Your task to perform on an android device: Go to network settings Image 0: 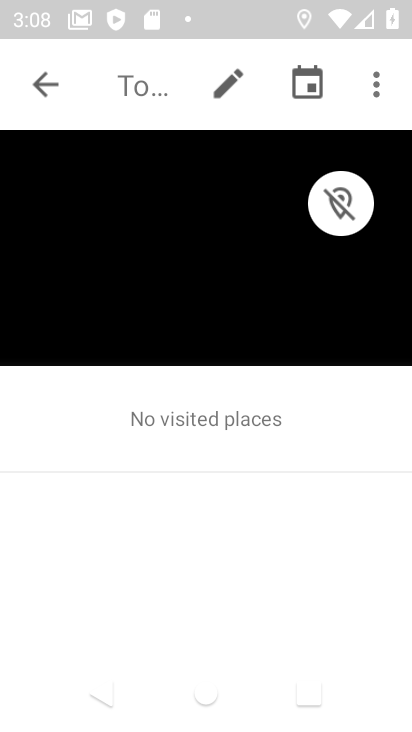
Step 0: press home button
Your task to perform on an android device: Go to network settings Image 1: 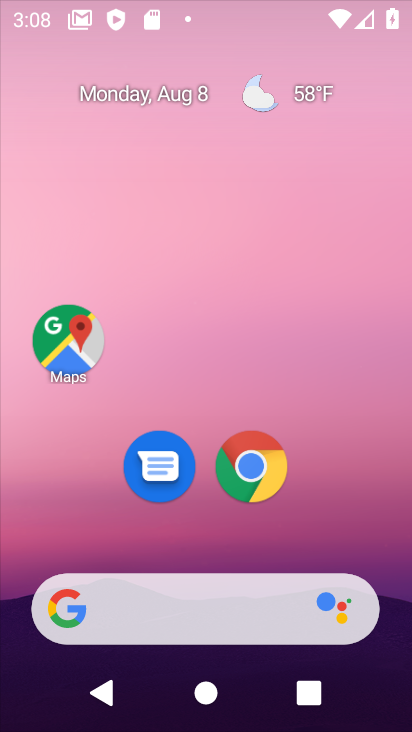
Step 1: drag from (238, 656) to (234, 173)
Your task to perform on an android device: Go to network settings Image 2: 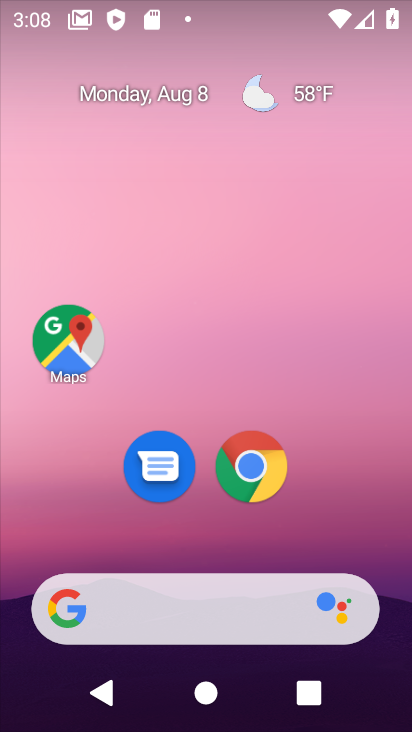
Step 2: drag from (209, 606) to (225, 188)
Your task to perform on an android device: Go to network settings Image 3: 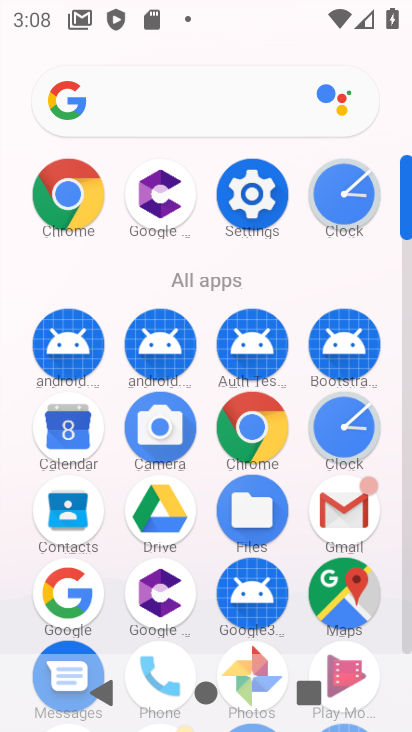
Step 3: click (246, 176)
Your task to perform on an android device: Go to network settings Image 4: 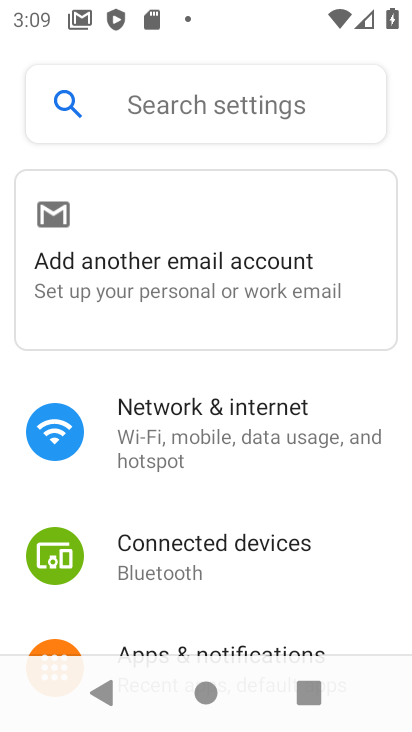
Step 4: click (212, 408)
Your task to perform on an android device: Go to network settings Image 5: 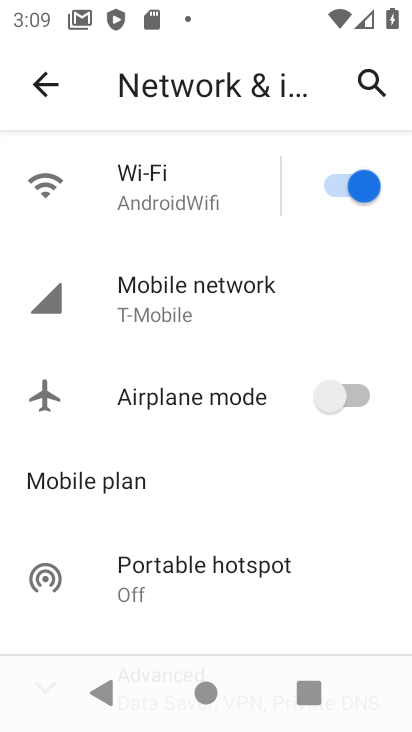
Step 5: task complete